Your task to perform on an android device: refresh tabs in the chrome app Image 0: 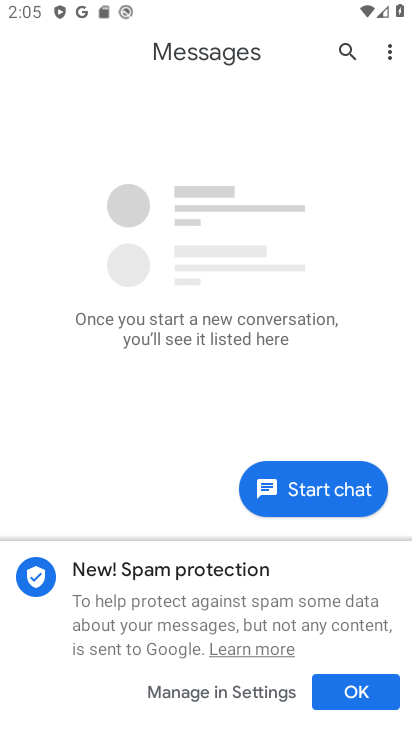
Step 0: press home button
Your task to perform on an android device: refresh tabs in the chrome app Image 1: 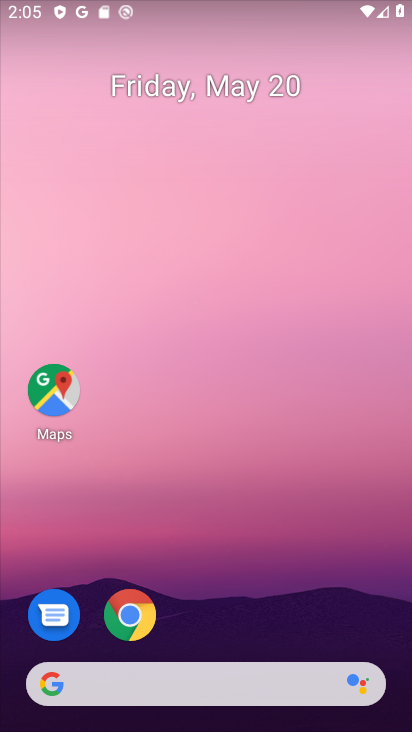
Step 1: drag from (254, 624) to (294, 7)
Your task to perform on an android device: refresh tabs in the chrome app Image 2: 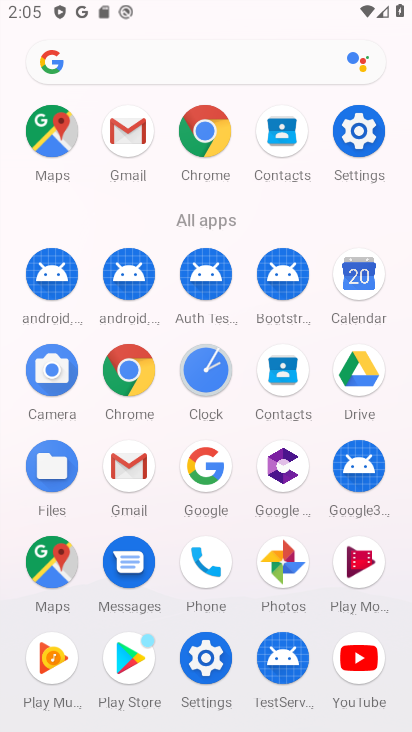
Step 2: click (208, 143)
Your task to perform on an android device: refresh tabs in the chrome app Image 3: 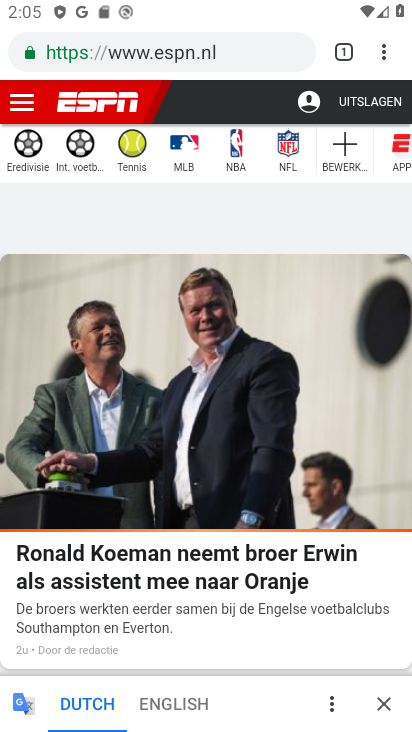
Step 3: click (380, 61)
Your task to perform on an android device: refresh tabs in the chrome app Image 4: 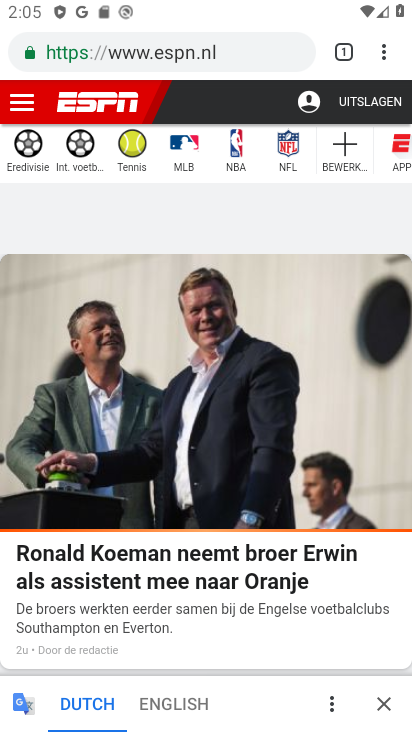
Step 4: task complete